Your task to perform on an android device: Open Wikipedia Image 0: 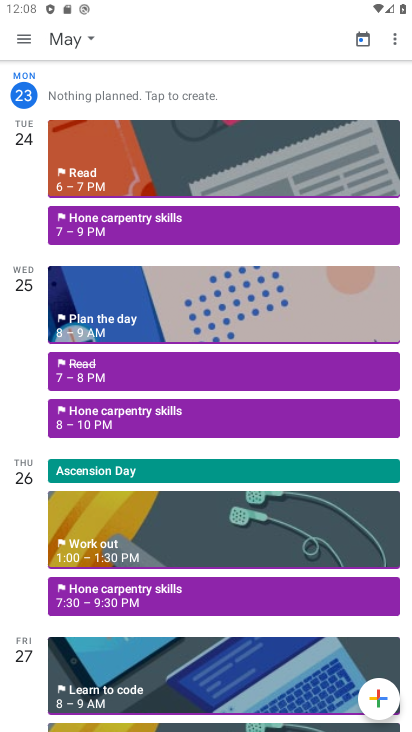
Step 0: press home button
Your task to perform on an android device: Open Wikipedia Image 1: 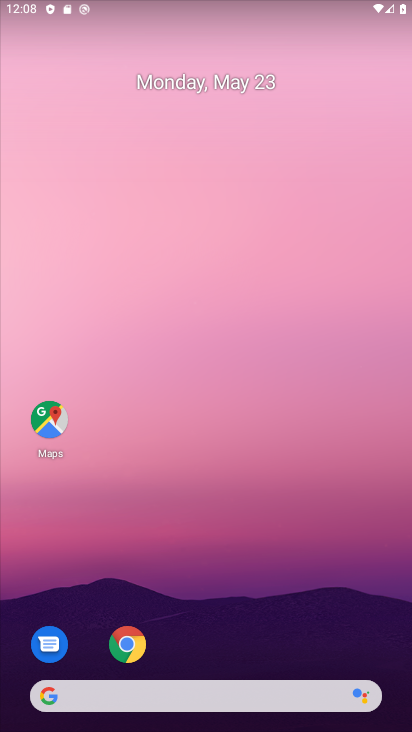
Step 1: click (131, 642)
Your task to perform on an android device: Open Wikipedia Image 2: 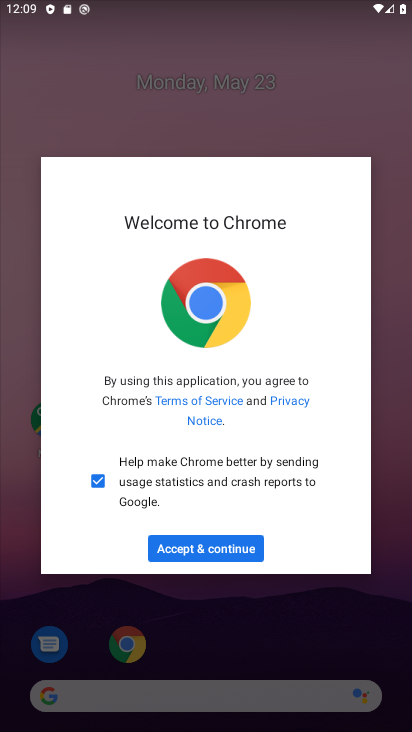
Step 2: click (223, 542)
Your task to perform on an android device: Open Wikipedia Image 3: 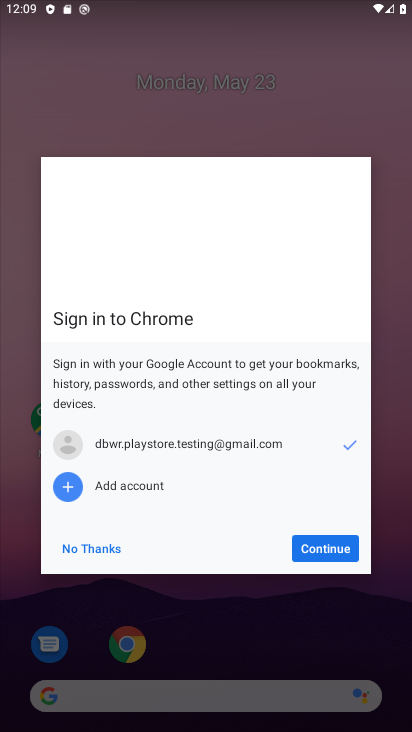
Step 3: click (319, 552)
Your task to perform on an android device: Open Wikipedia Image 4: 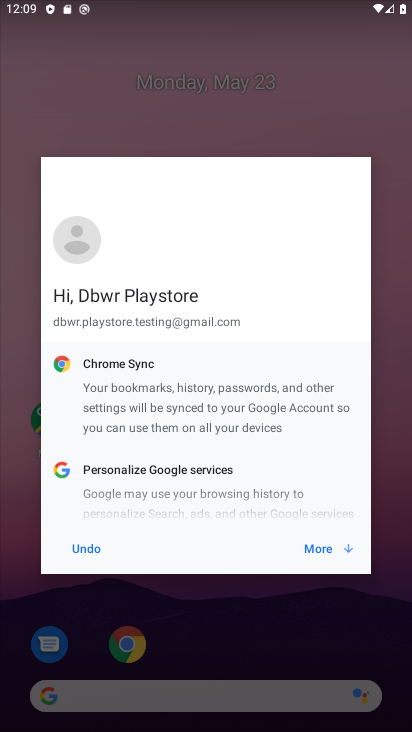
Step 4: click (319, 552)
Your task to perform on an android device: Open Wikipedia Image 5: 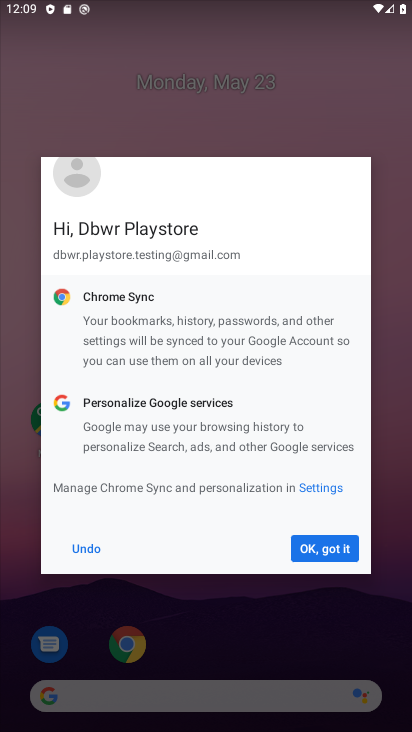
Step 5: click (319, 552)
Your task to perform on an android device: Open Wikipedia Image 6: 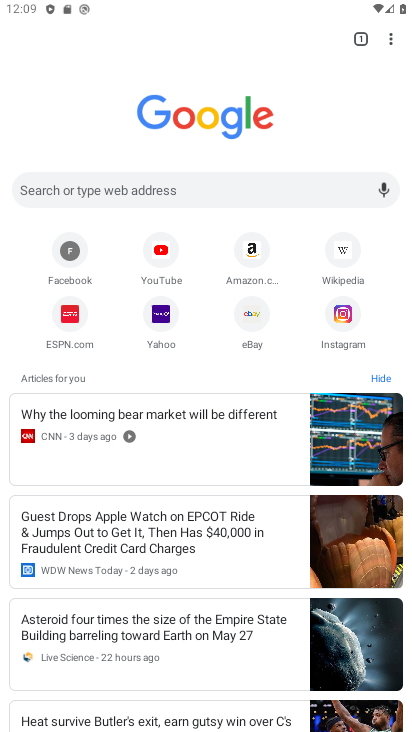
Step 6: click (344, 260)
Your task to perform on an android device: Open Wikipedia Image 7: 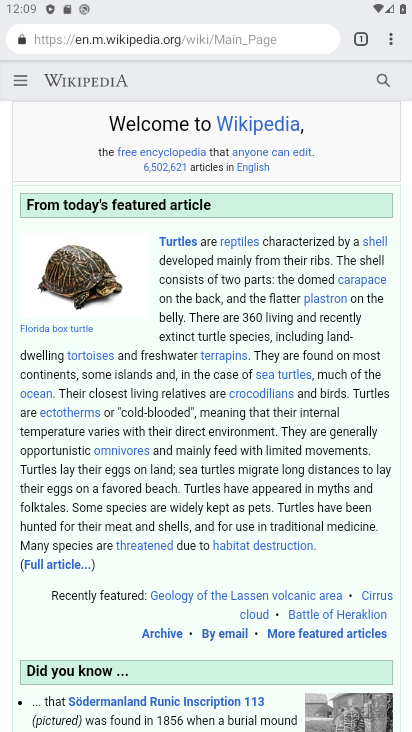
Step 7: task complete